Your task to perform on an android device: check storage Image 0: 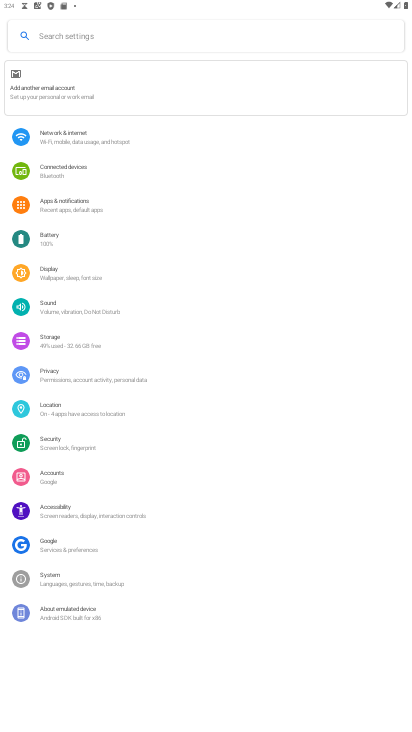
Step 0: click (87, 346)
Your task to perform on an android device: check storage Image 1: 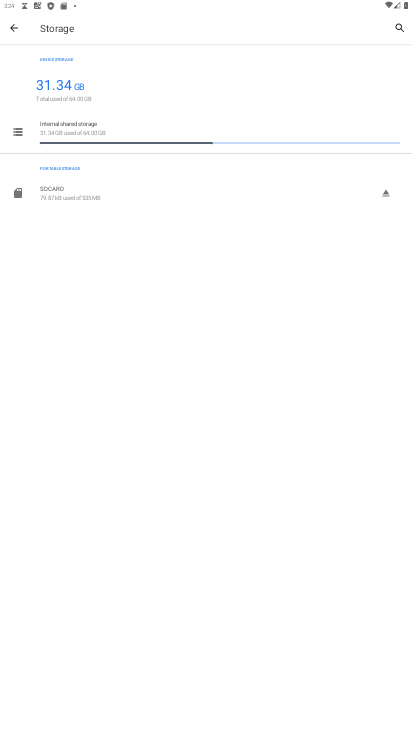
Step 1: click (91, 131)
Your task to perform on an android device: check storage Image 2: 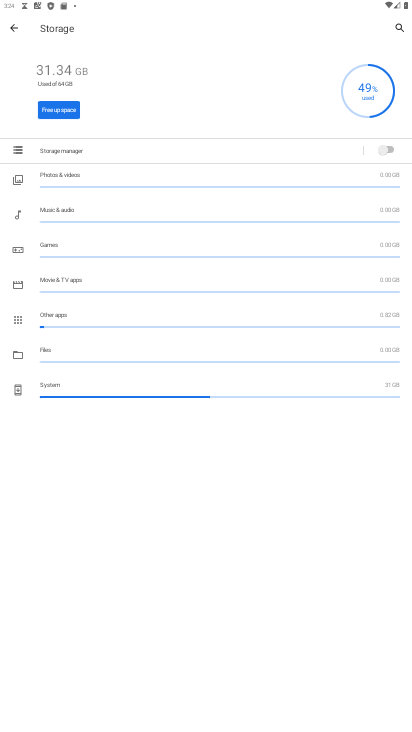
Step 2: task complete